Your task to perform on an android device: allow cookies in the chrome app Image 0: 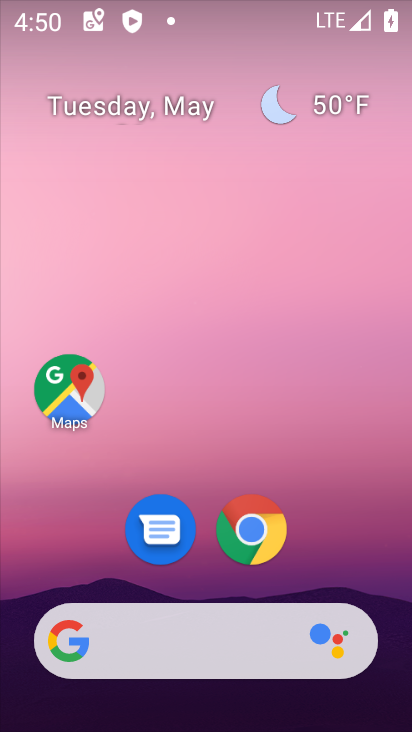
Step 0: drag from (320, 461) to (239, 21)
Your task to perform on an android device: allow cookies in the chrome app Image 1: 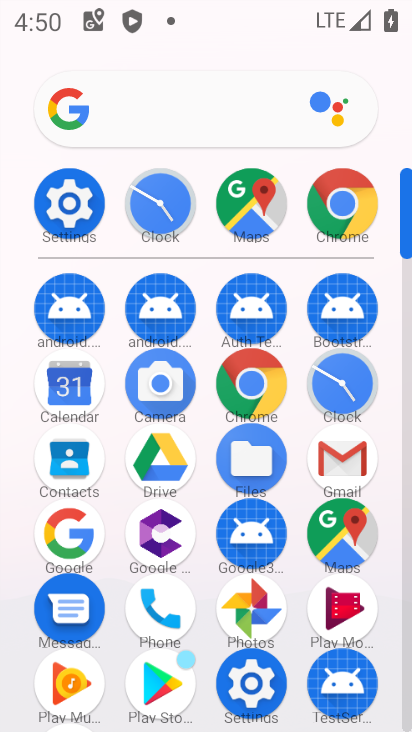
Step 1: drag from (3, 552) to (3, 197)
Your task to perform on an android device: allow cookies in the chrome app Image 2: 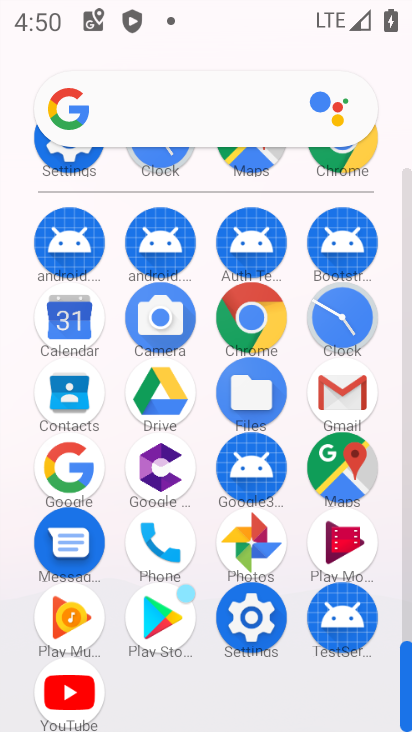
Step 2: click (250, 310)
Your task to perform on an android device: allow cookies in the chrome app Image 3: 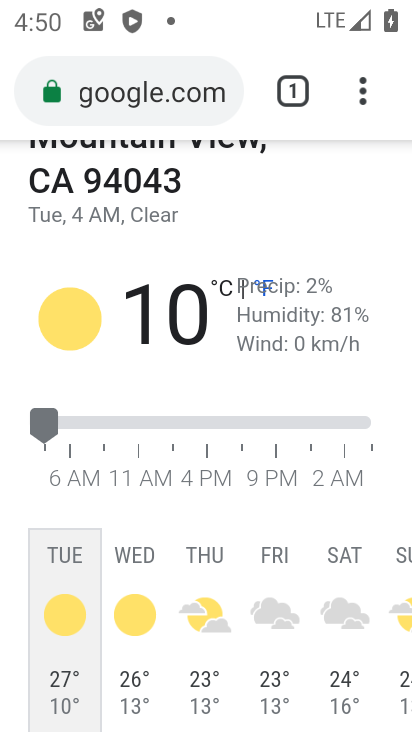
Step 3: drag from (359, 91) to (100, 554)
Your task to perform on an android device: allow cookies in the chrome app Image 4: 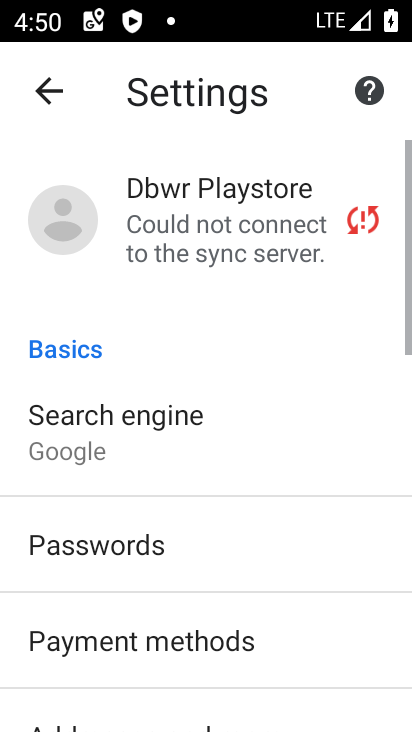
Step 4: drag from (226, 581) to (226, 222)
Your task to perform on an android device: allow cookies in the chrome app Image 5: 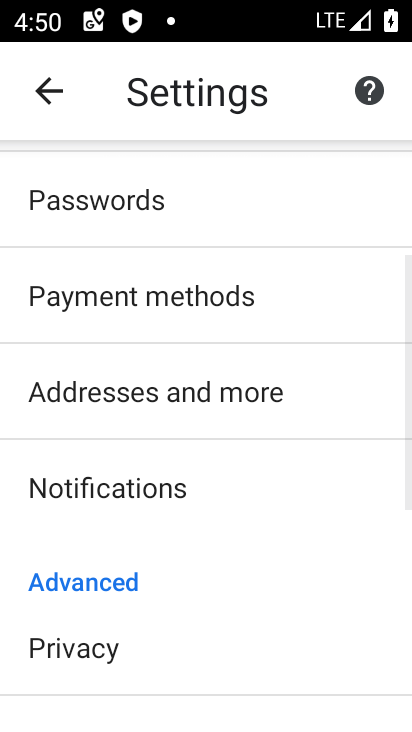
Step 5: drag from (241, 333) to (251, 198)
Your task to perform on an android device: allow cookies in the chrome app Image 6: 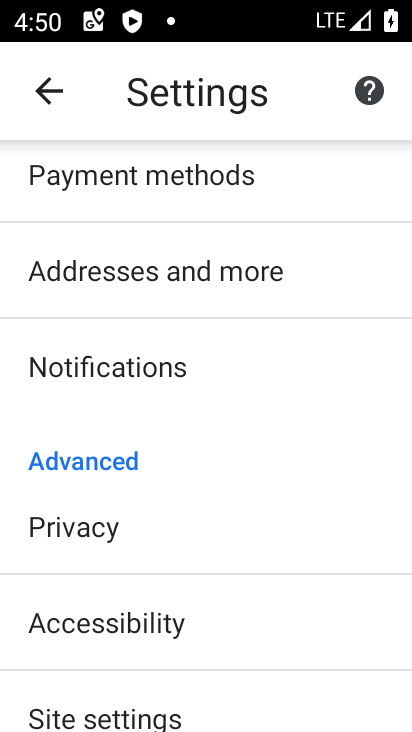
Step 6: drag from (222, 579) to (237, 221)
Your task to perform on an android device: allow cookies in the chrome app Image 7: 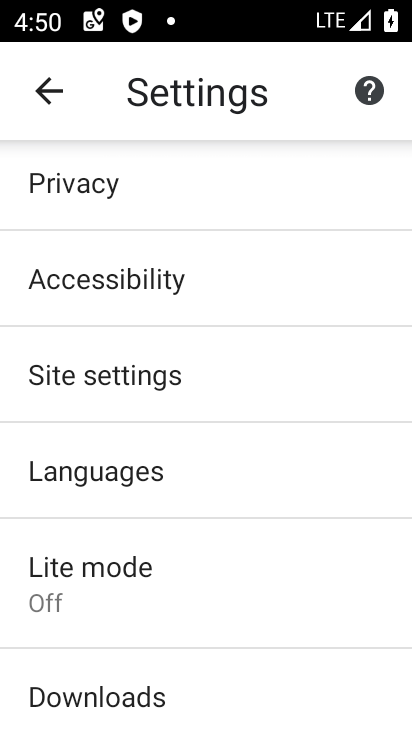
Step 7: click (183, 366)
Your task to perform on an android device: allow cookies in the chrome app Image 8: 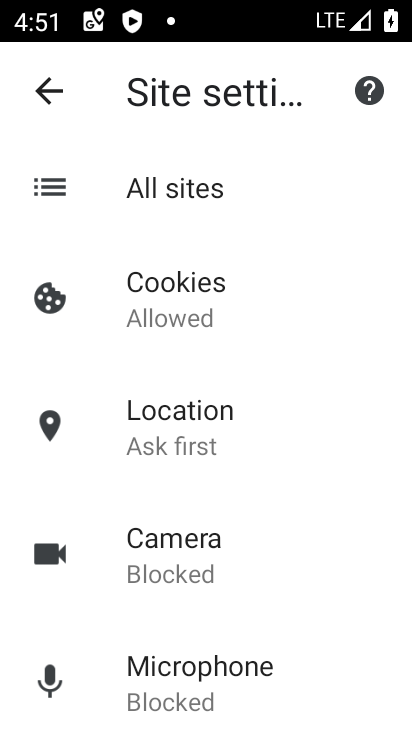
Step 8: task complete